Your task to perform on an android device: turn smart compose on in the gmail app Image 0: 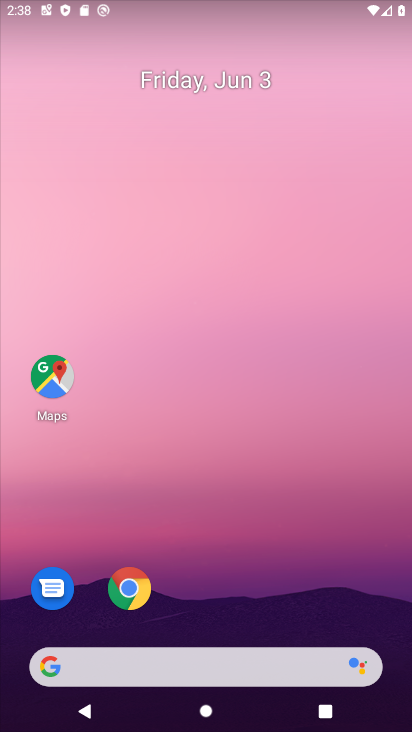
Step 0: drag from (244, 604) to (279, 195)
Your task to perform on an android device: turn smart compose on in the gmail app Image 1: 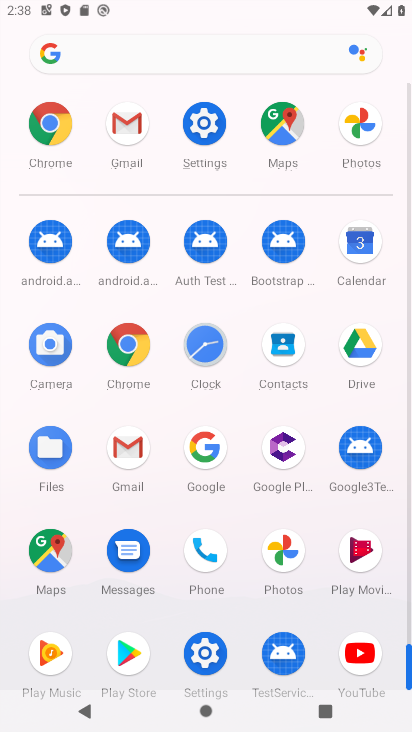
Step 1: click (138, 469)
Your task to perform on an android device: turn smart compose on in the gmail app Image 2: 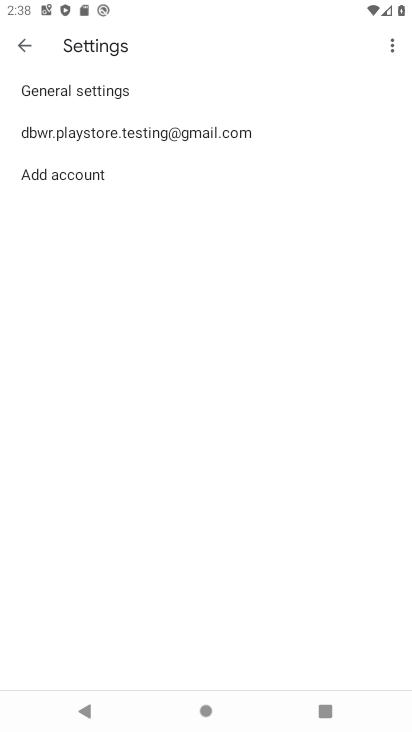
Step 2: press home button
Your task to perform on an android device: turn smart compose on in the gmail app Image 3: 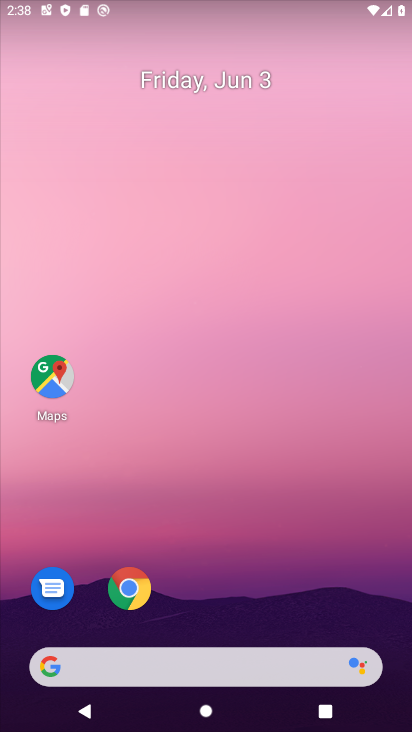
Step 3: drag from (340, 515) to (332, 139)
Your task to perform on an android device: turn smart compose on in the gmail app Image 4: 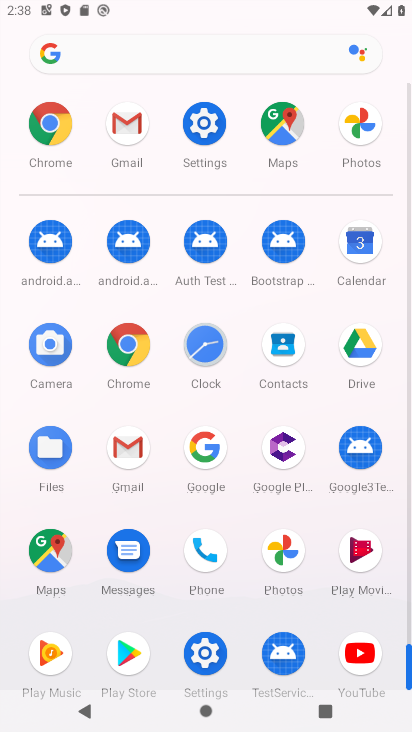
Step 4: click (130, 459)
Your task to perform on an android device: turn smart compose on in the gmail app Image 5: 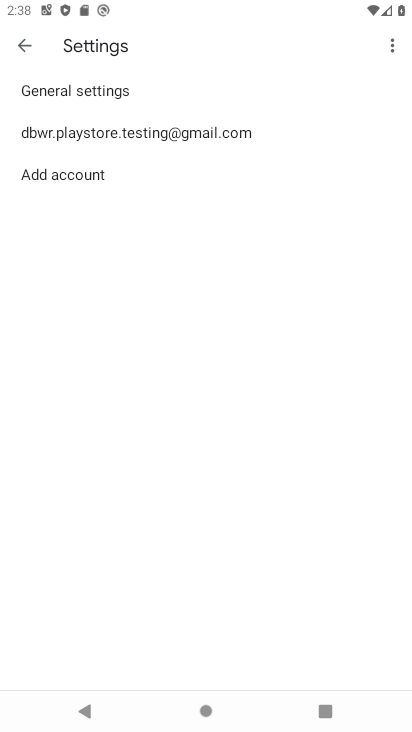
Step 5: press back button
Your task to perform on an android device: turn smart compose on in the gmail app Image 6: 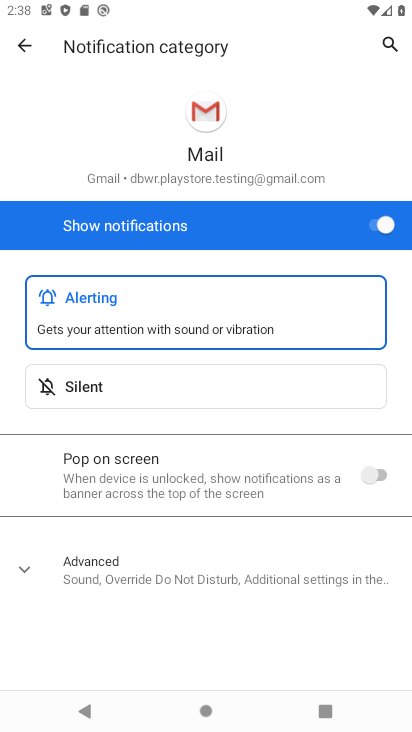
Step 6: press back button
Your task to perform on an android device: turn smart compose on in the gmail app Image 7: 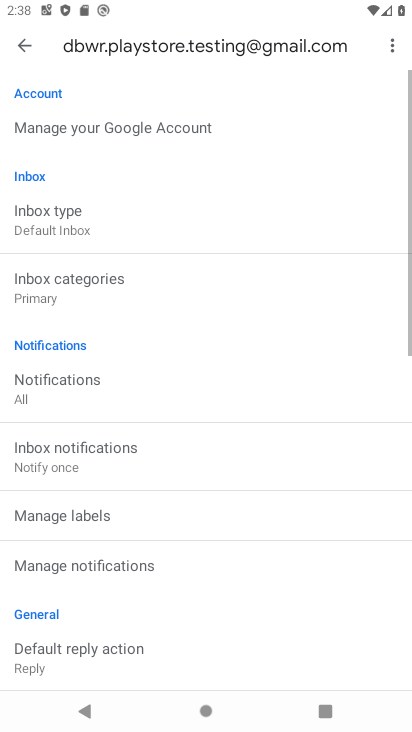
Step 7: press back button
Your task to perform on an android device: turn smart compose on in the gmail app Image 8: 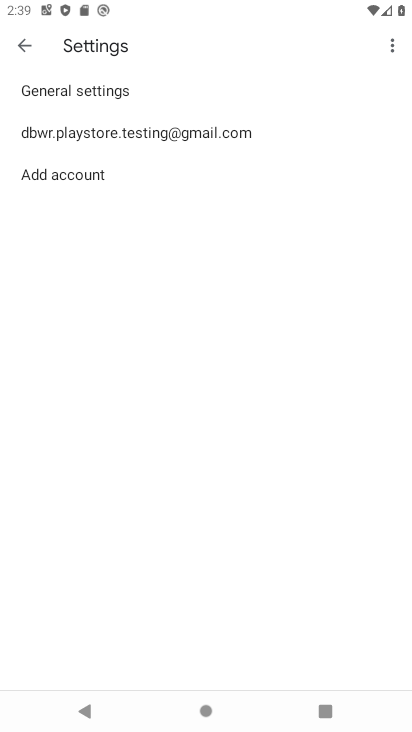
Step 8: click (217, 136)
Your task to perform on an android device: turn smart compose on in the gmail app Image 9: 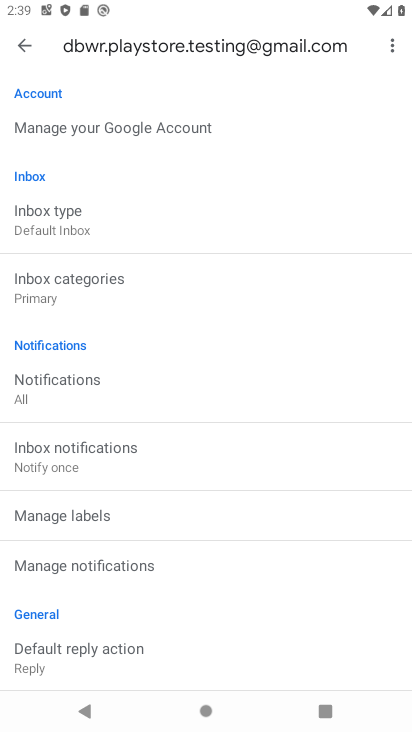
Step 9: task complete